Your task to perform on an android device: Open the camera Image 0: 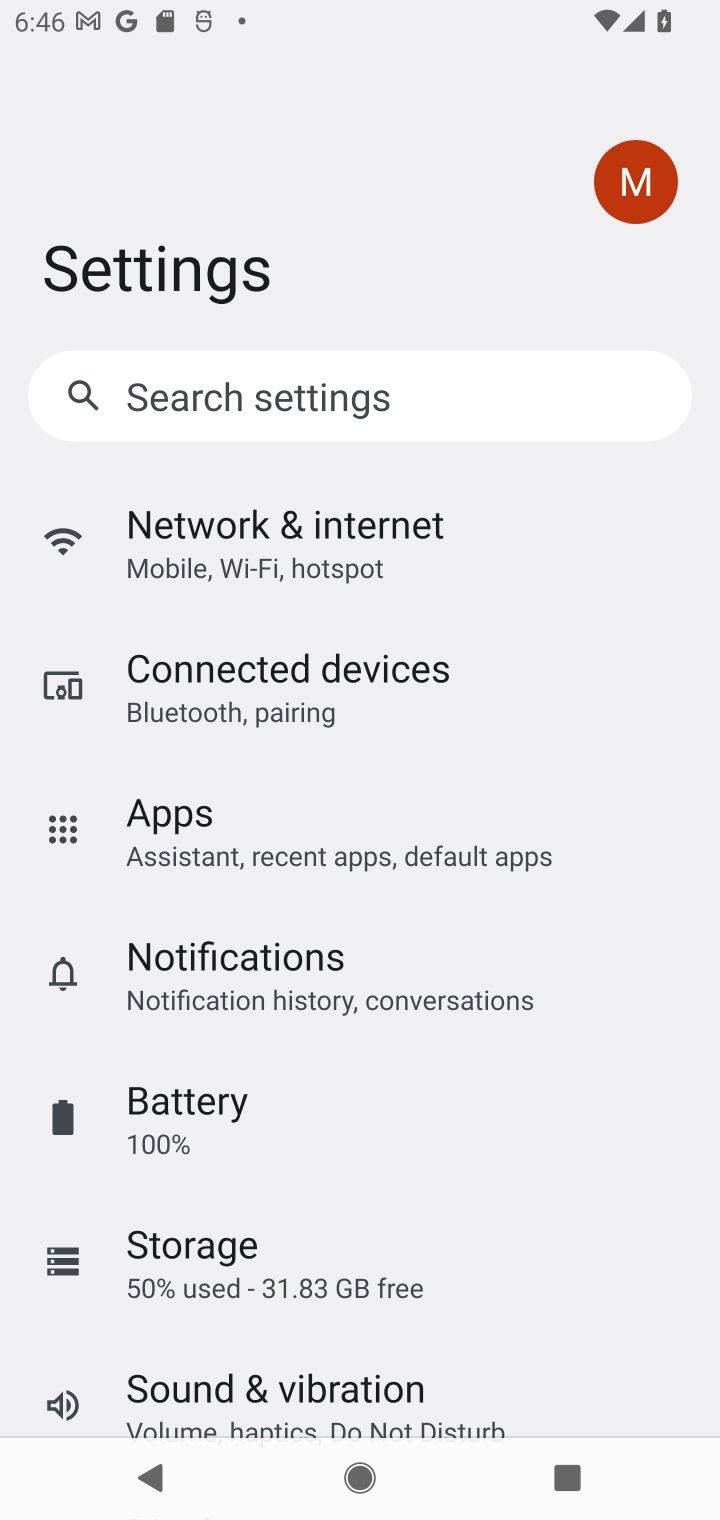
Step 0: press home button
Your task to perform on an android device: Open the camera Image 1: 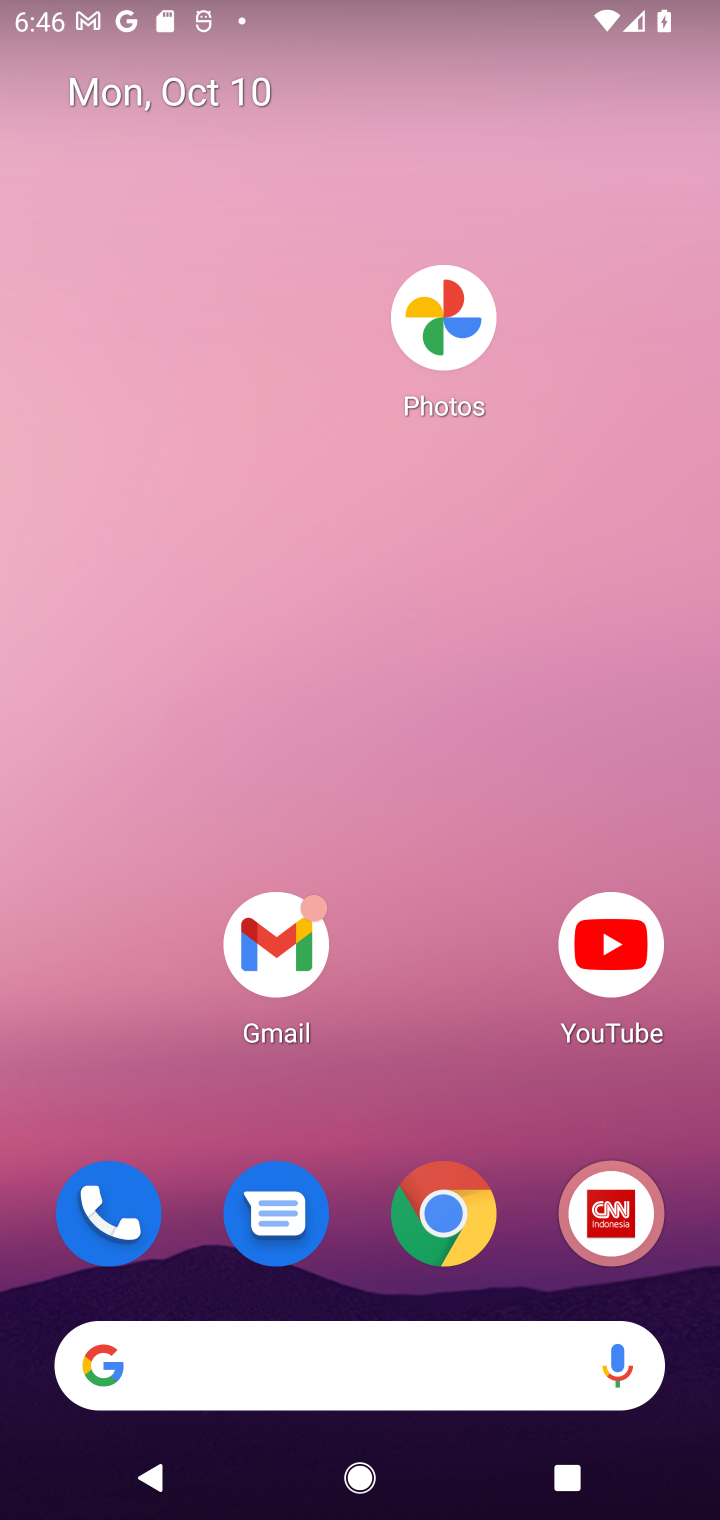
Step 1: drag from (338, 984) to (368, 372)
Your task to perform on an android device: Open the camera Image 2: 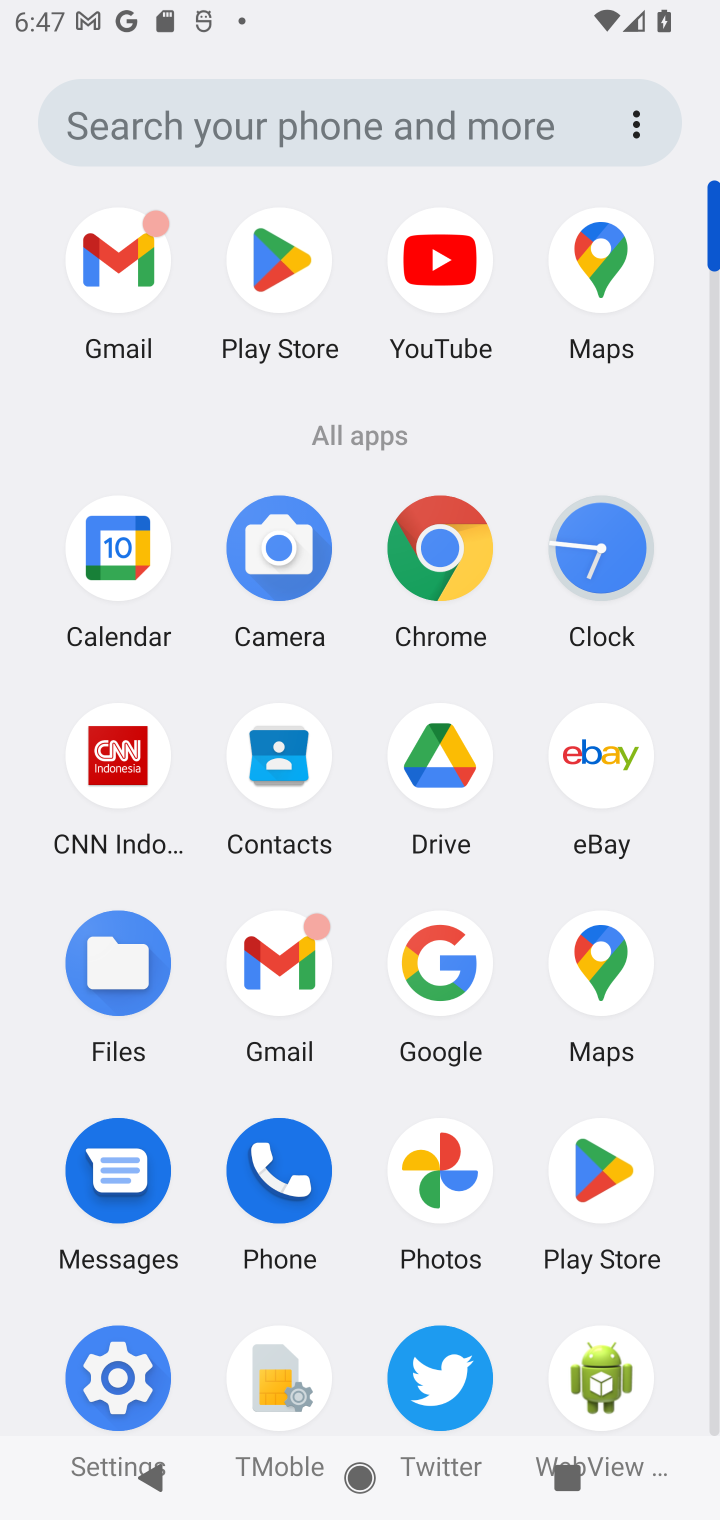
Step 2: drag from (340, 1044) to (376, 686)
Your task to perform on an android device: Open the camera Image 3: 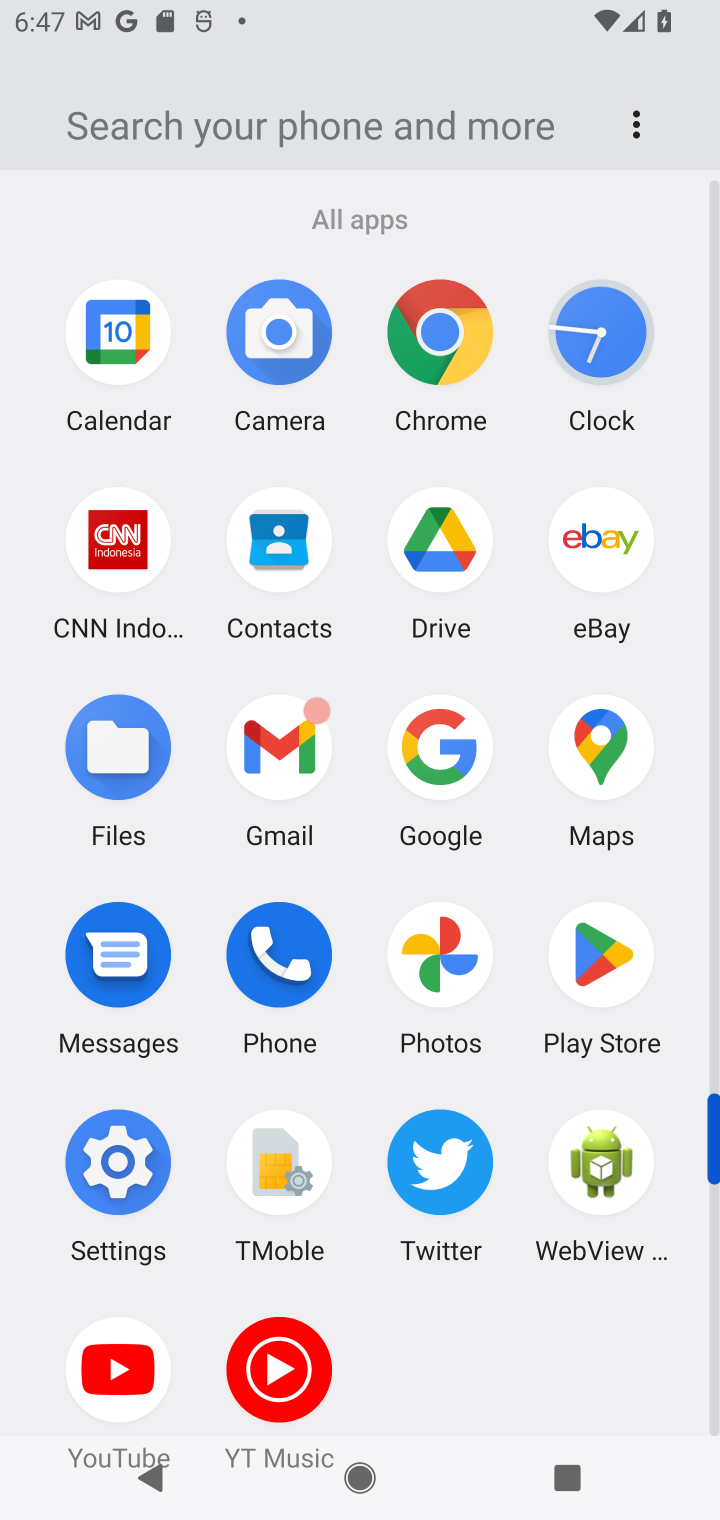
Step 3: click (280, 367)
Your task to perform on an android device: Open the camera Image 4: 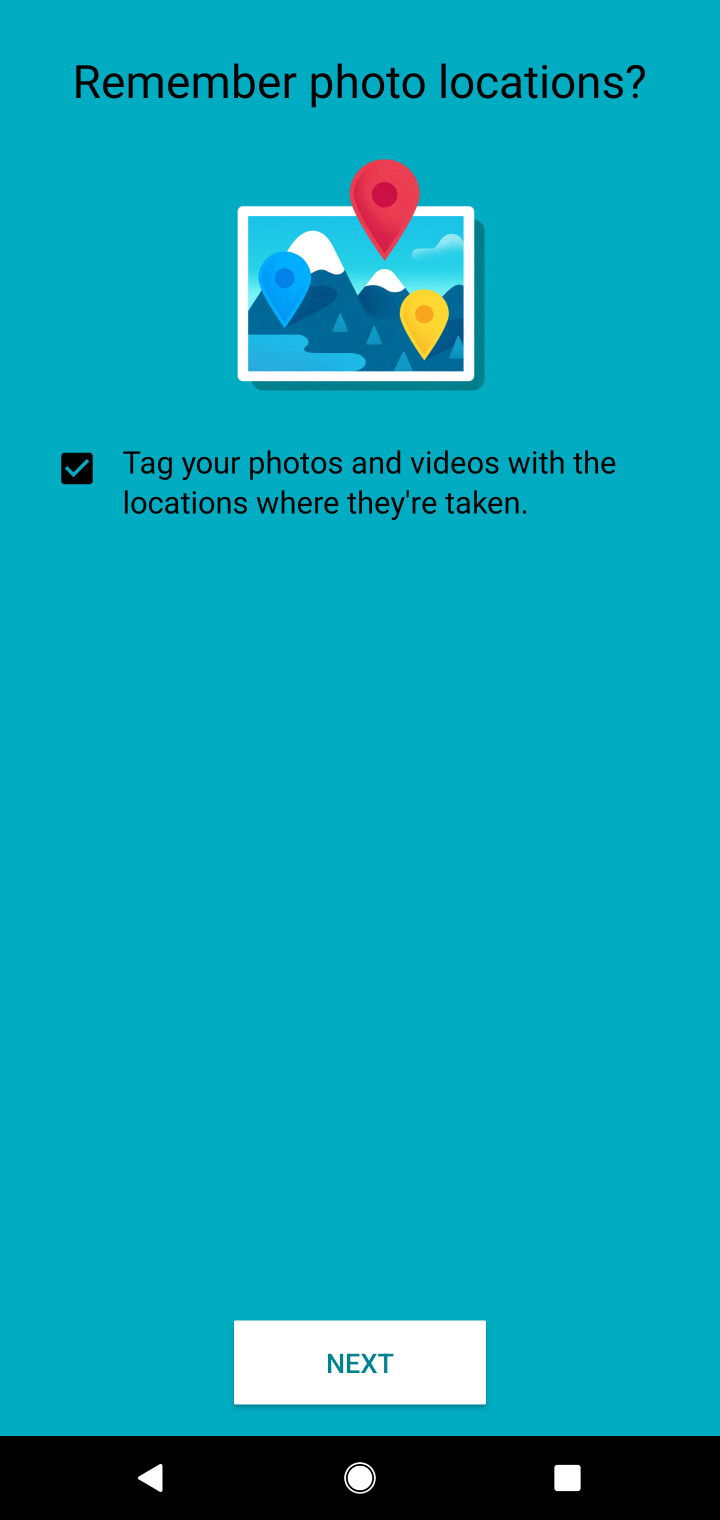
Step 4: click (431, 1344)
Your task to perform on an android device: Open the camera Image 5: 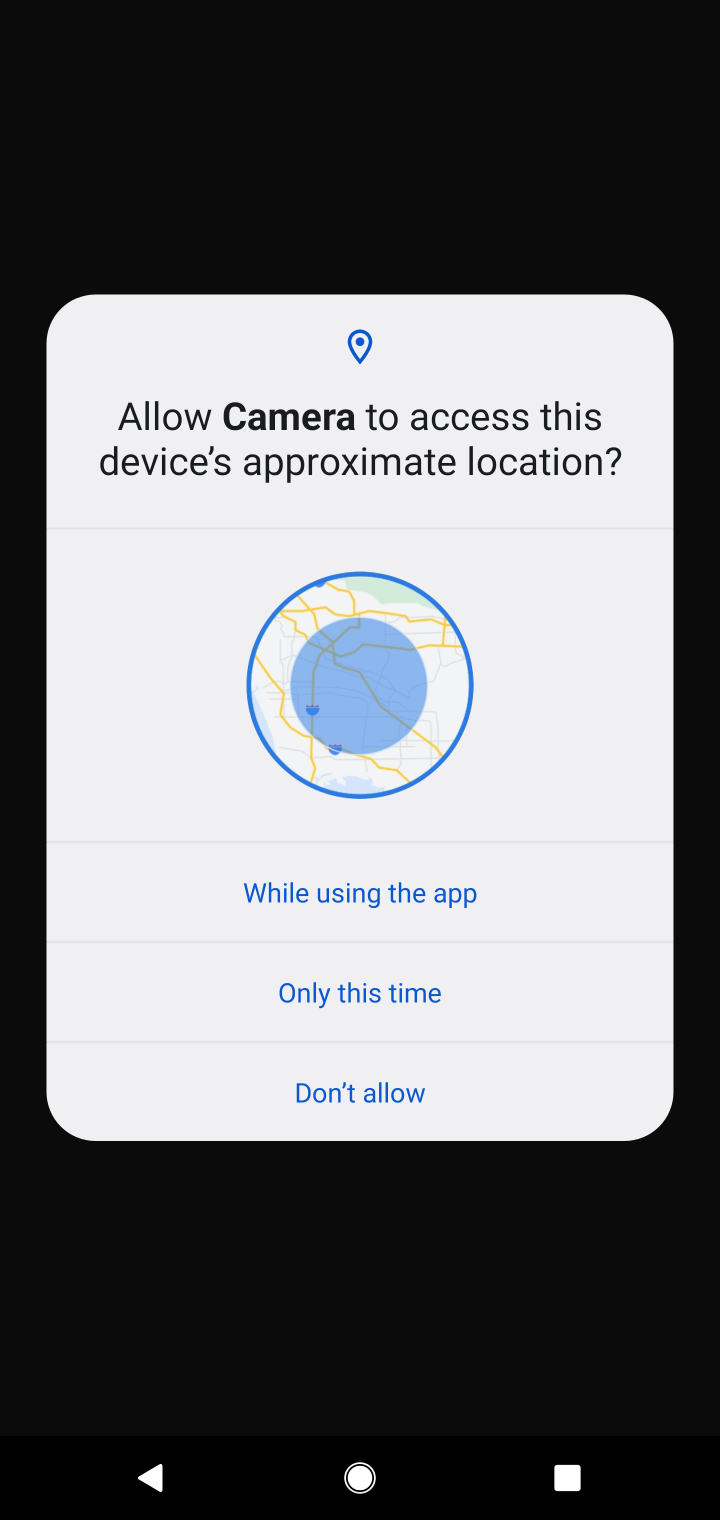
Step 5: click (401, 1097)
Your task to perform on an android device: Open the camera Image 6: 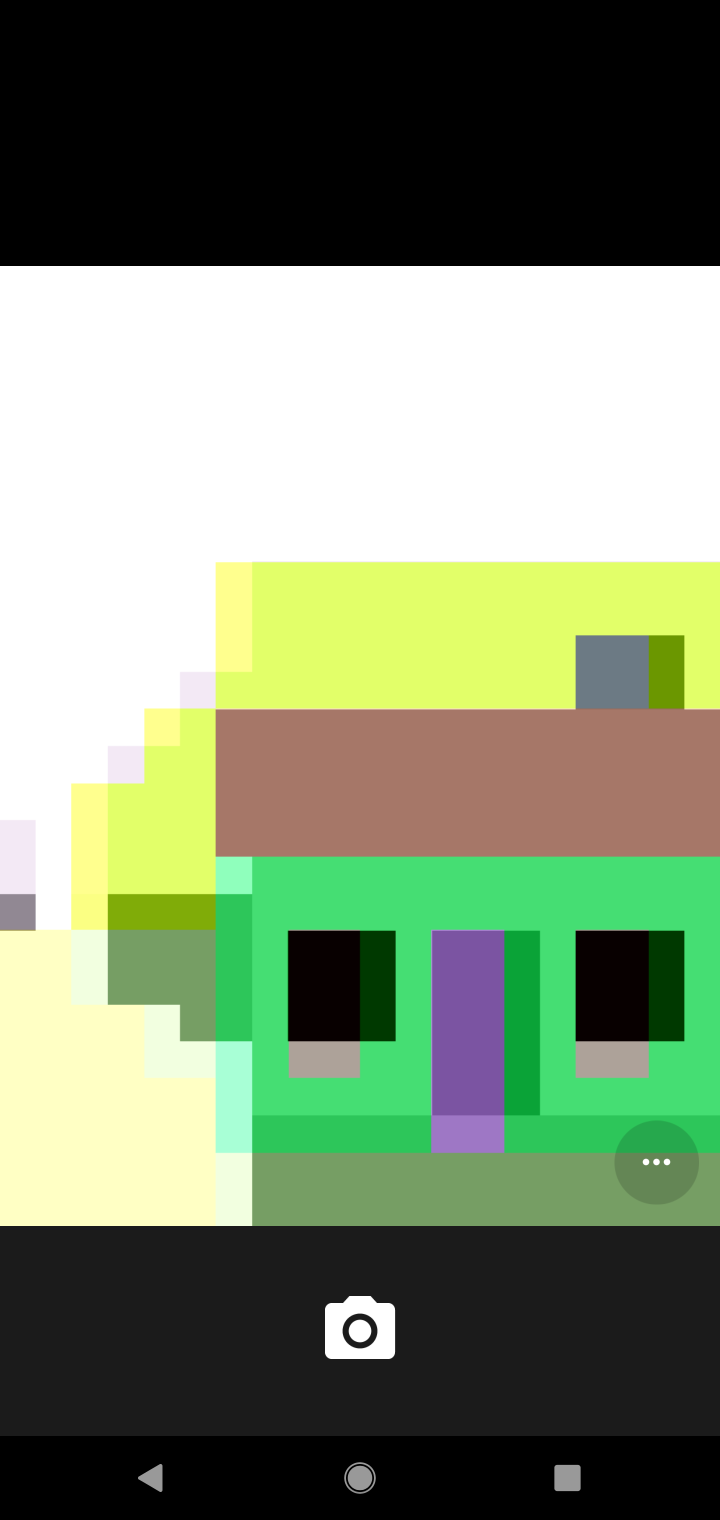
Step 6: task complete